Your task to perform on an android device: move a message to another label in the gmail app Image 0: 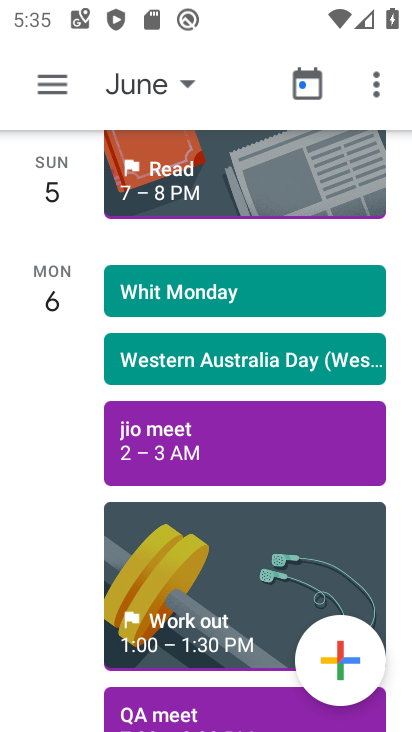
Step 0: press home button
Your task to perform on an android device: move a message to another label in the gmail app Image 1: 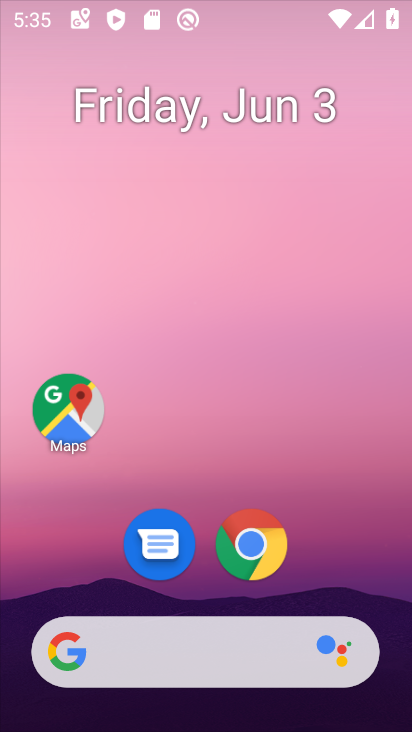
Step 1: drag from (288, 523) to (361, 112)
Your task to perform on an android device: move a message to another label in the gmail app Image 2: 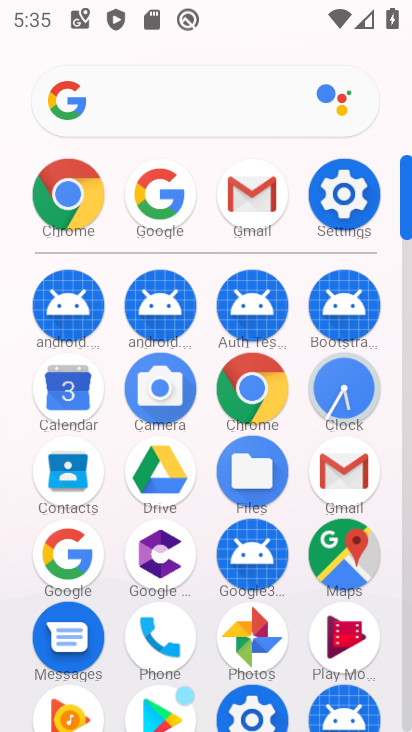
Step 2: click (329, 460)
Your task to perform on an android device: move a message to another label in the gmail app Image 3: 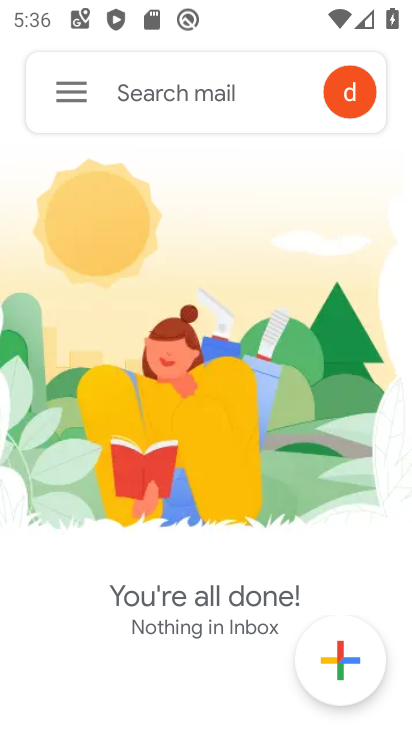
Step 3: task complete